Your task to perform on an android device: Search for razer deathadder on newegg.com, select the first entry, add it to the cart, then select checkout. Image 0: 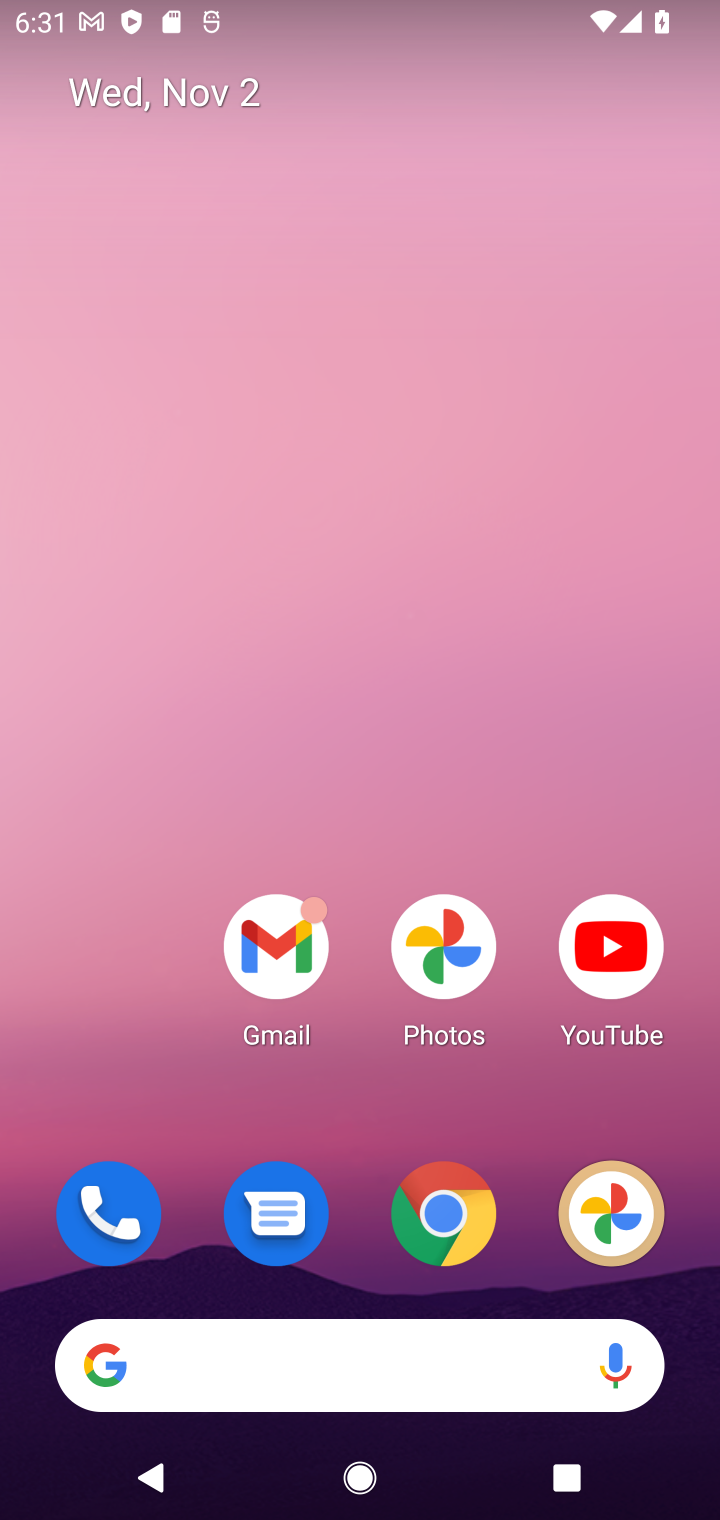
Step 0: click (445, 1207)
Your task to perform on an android device: Search for razer deathadder on newegg.com, select the first entry, add it to the cart, then select checkout. Image 1: 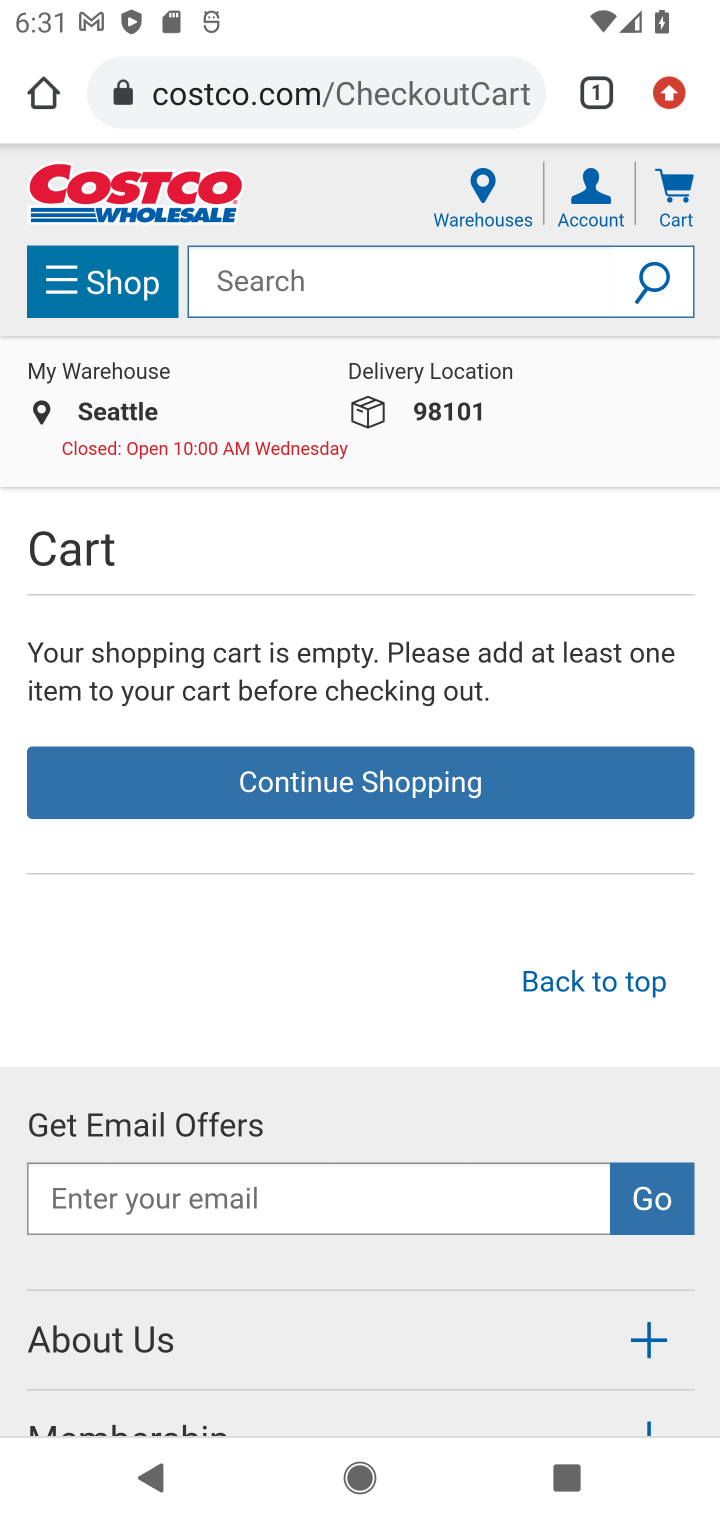
Step 1: click (384, 63)
Your task to perform on an android device: Search for razer deathadder on newegg.com, select the first entry, add it to the cart, then select checkout. Image 2: 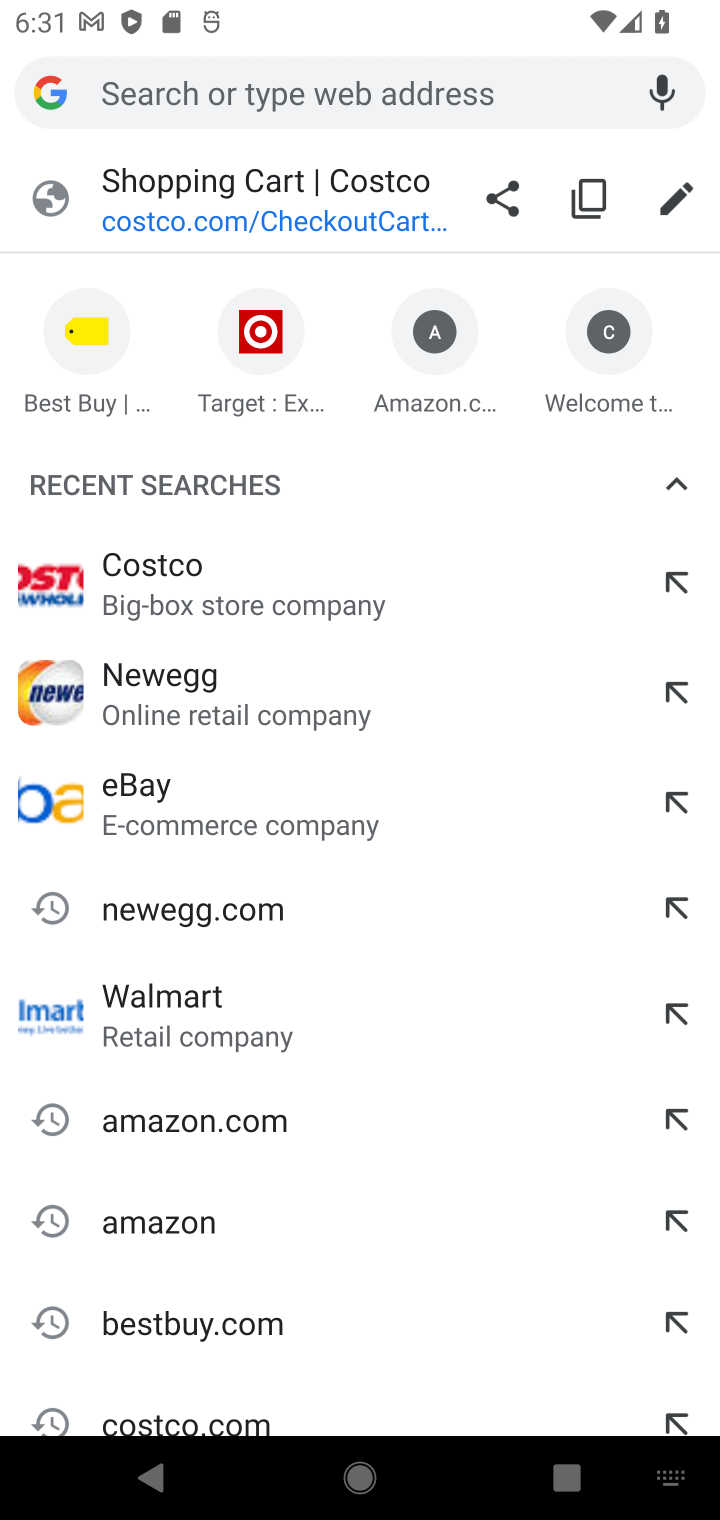
Step 2: click (139, 696)
Your task to perform on an android device: Search for razer deathadder on newegg.com, select the first entry, add it to the cart, then select checkout. Image 3: 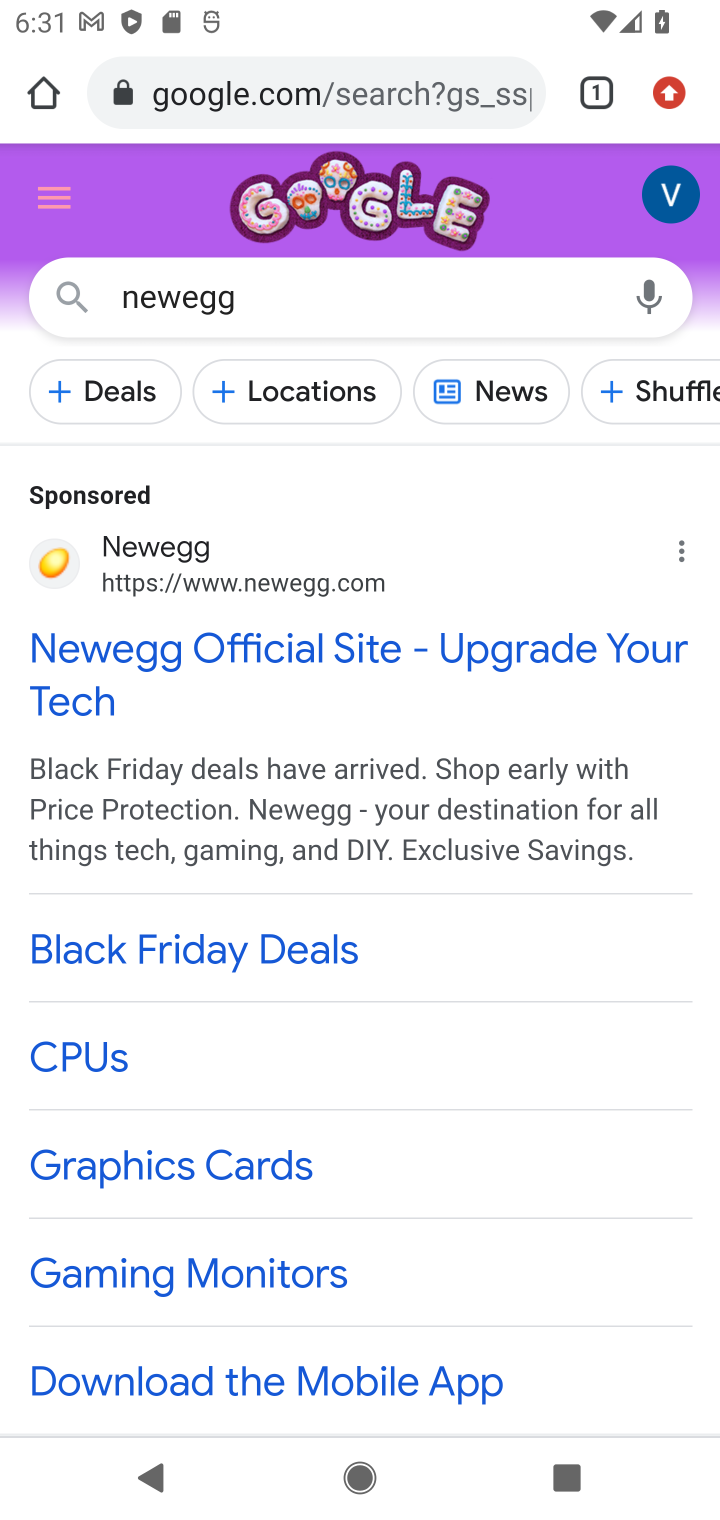
Step 3: click (142, 647)
Your task to perform on an android device: Search for razer deathadder on newegg.com, select the first entry, add it to the cart, then select checkout. Image 4: 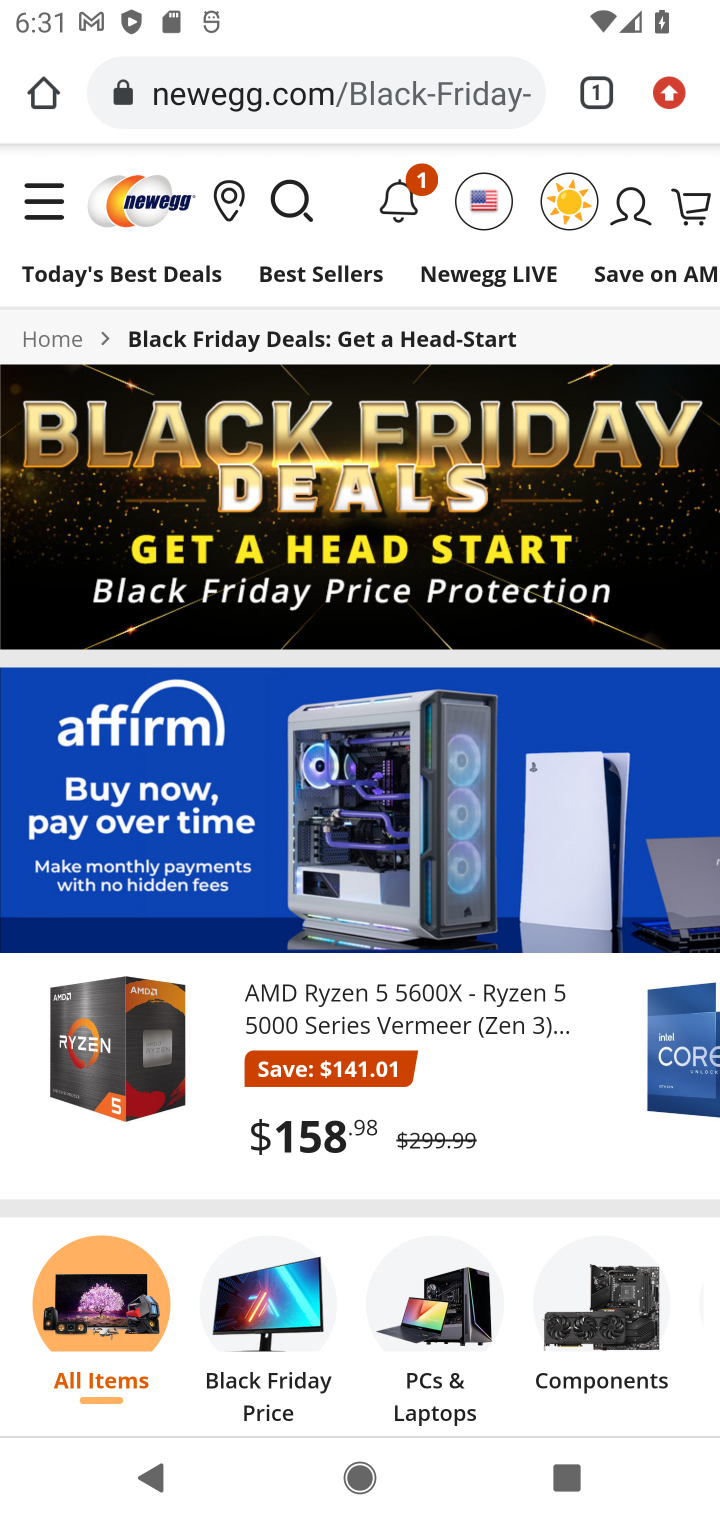
Step 4: click (296, 190)
Your task to perform on an android device: Search for razer deathadder on newegg.com, select the first entry, add it to the cart, then select checkout. Image 5: 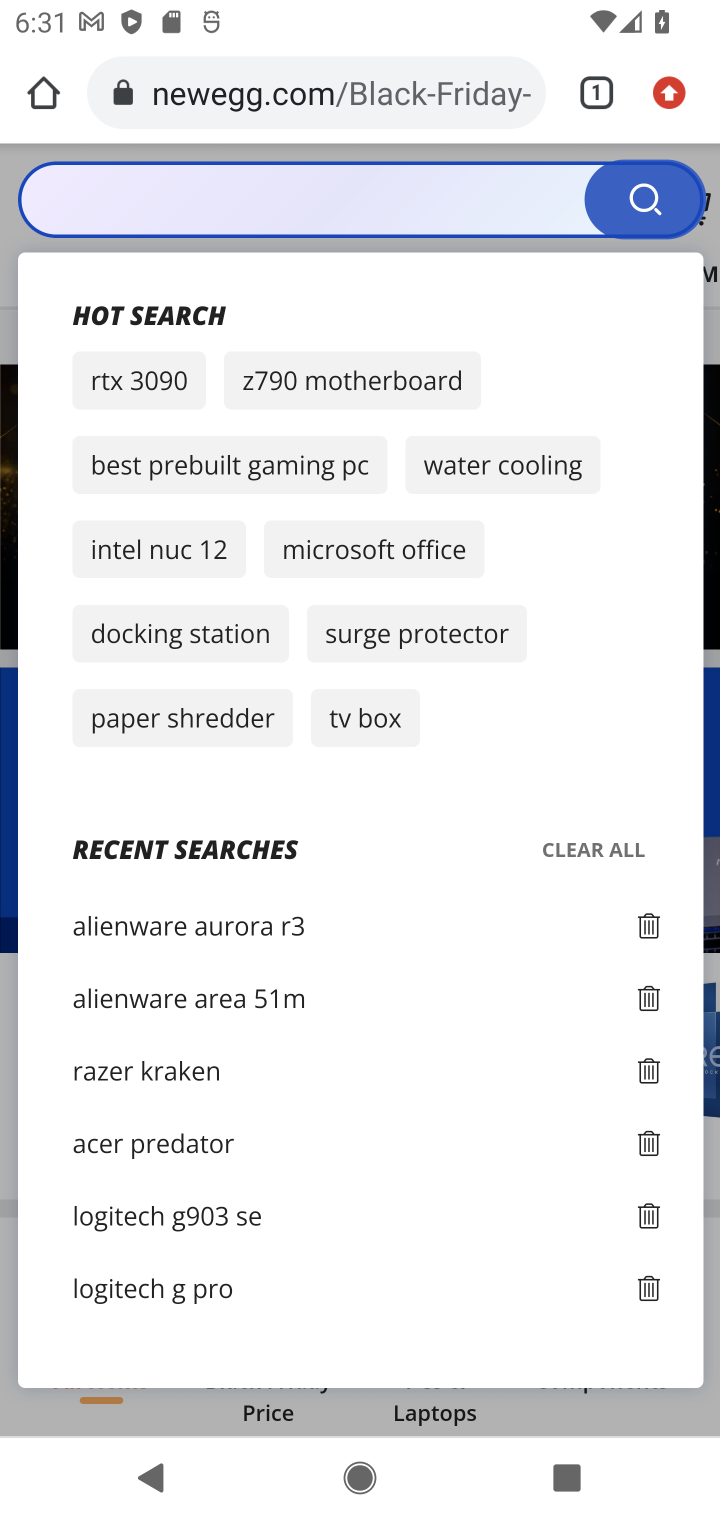
Step 5: click (162, 196)
Your task to perform on an android device: Search for razer deathadder on newegg.com, select the first entry, add it to the cart, then select checkout. Image 6: 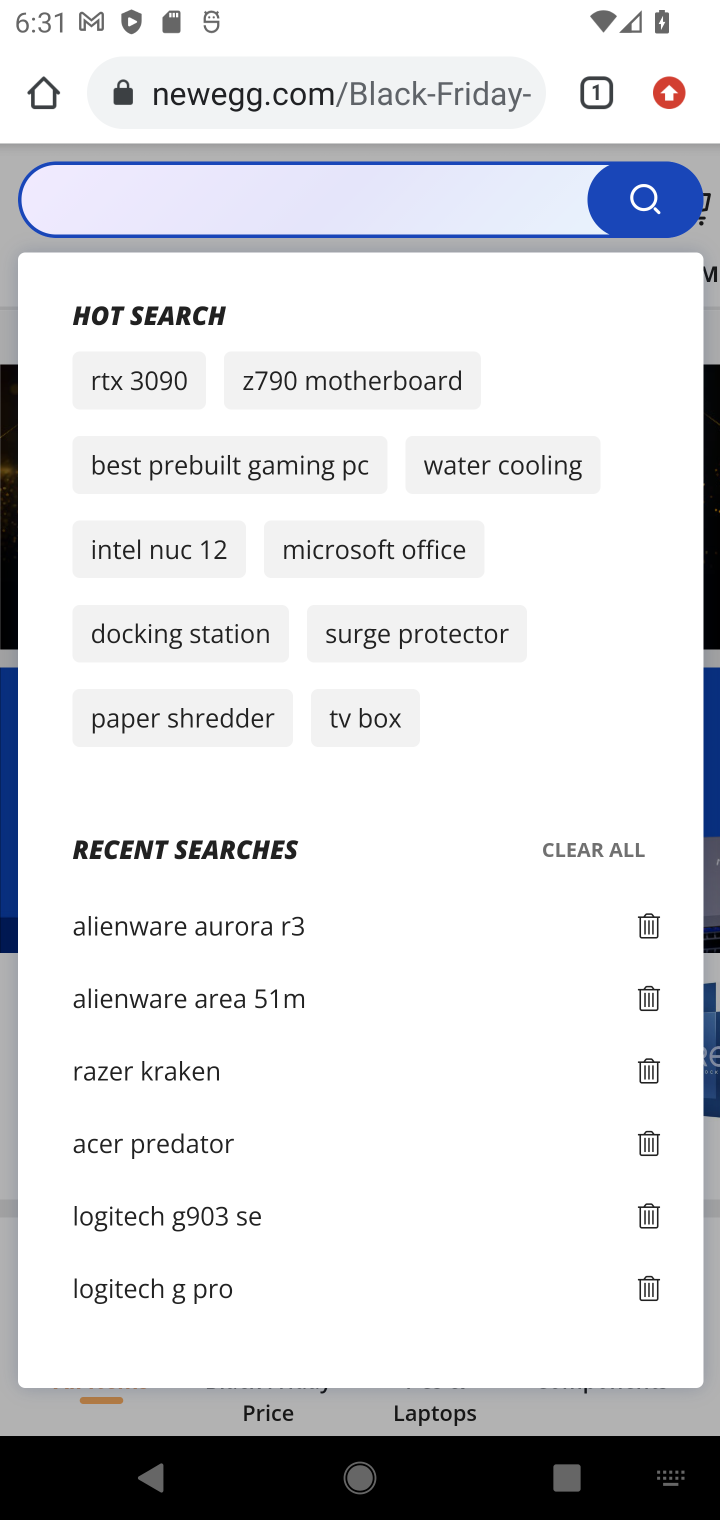
Step 6: type "razer deathadder"
Your task to perform on an android device: Search for razer deathadder on newegg.com, select the first entry, add it to the cart, then select checkout. Image 7: 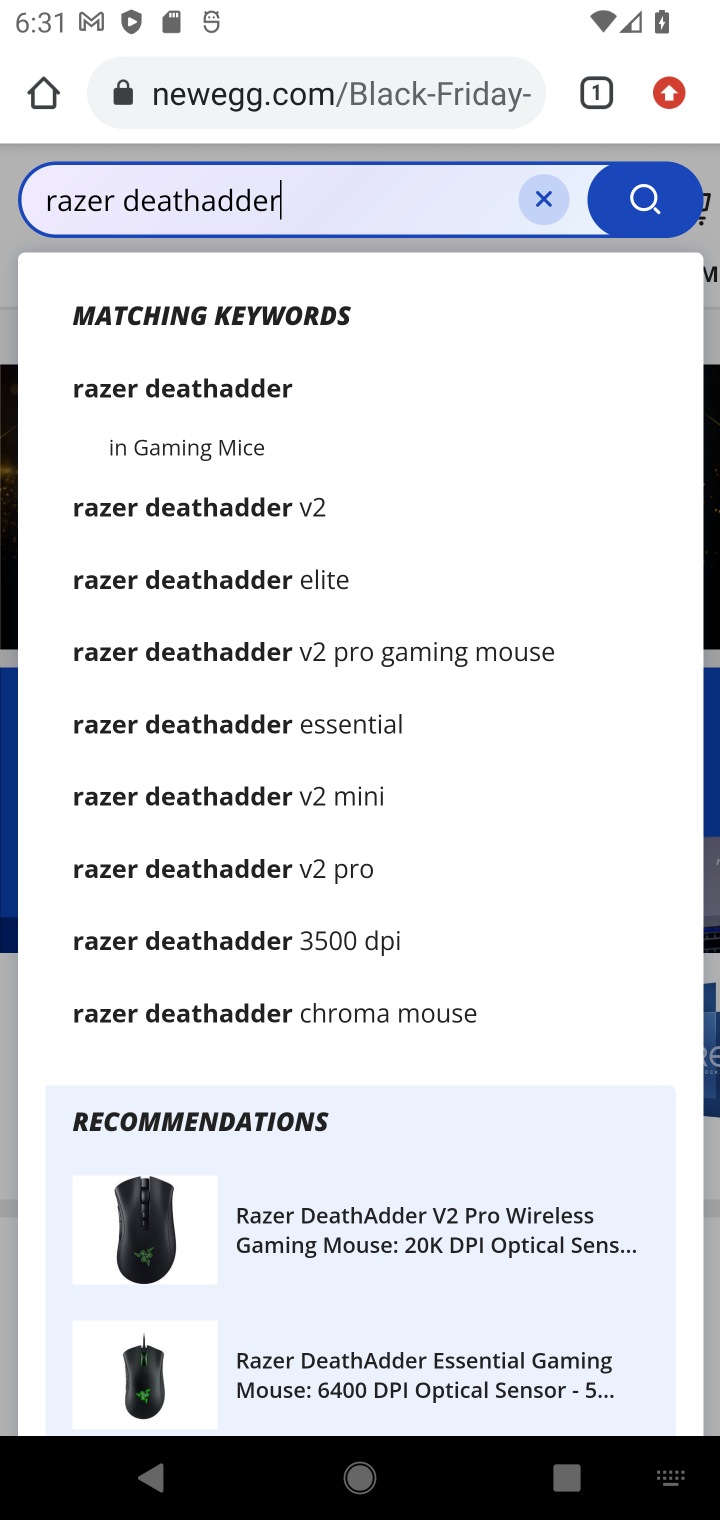
Step 7: click (153, 383)
Your task to perform on an android device: Search for razer deathadder on newegg.com, select the first entry, add it to the cart, then select checkout. Image 8: 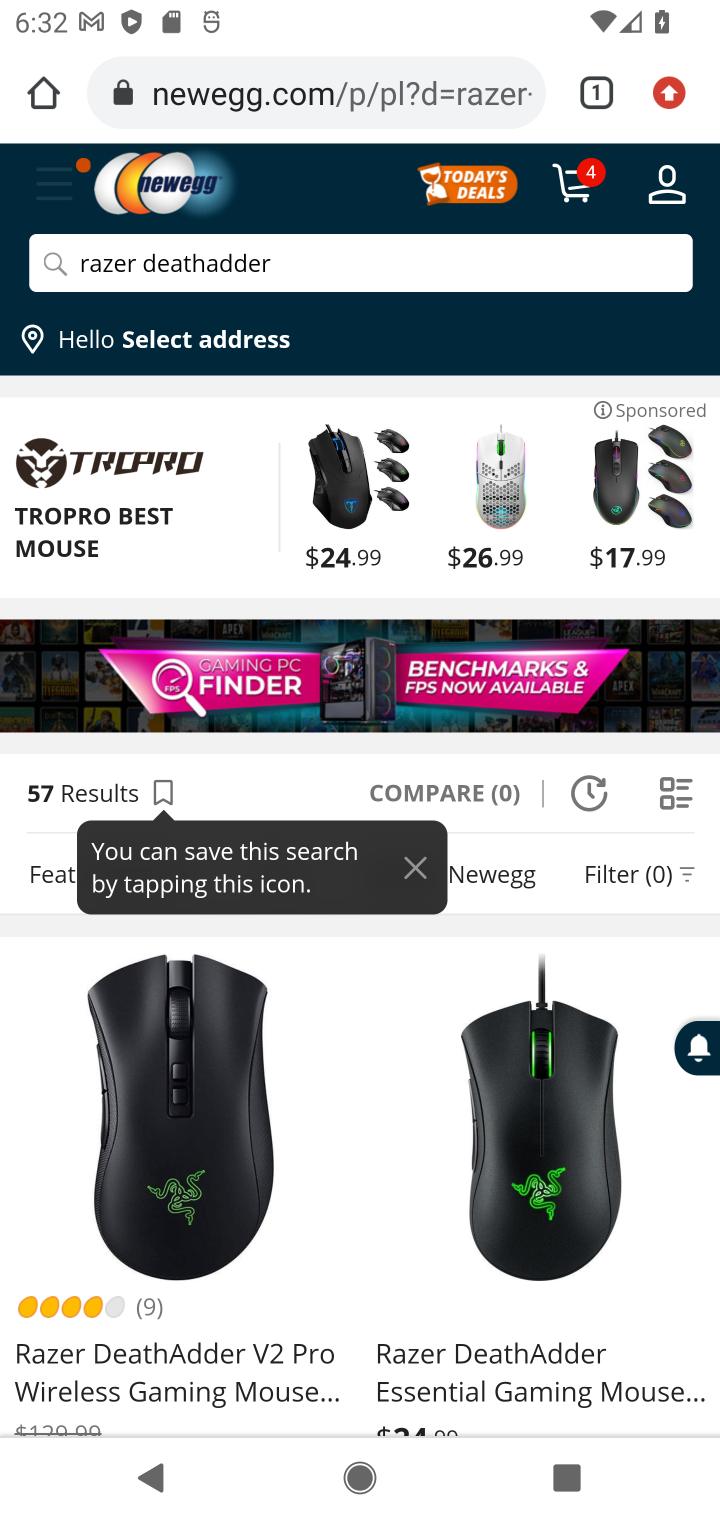
Step 8: drag from (353, 1340) to (377, 790)
Your task to perform on an android device: Search for razer deathadder on newegg.com, select the first entry, add it to the cart, then select checkout. Image 9: 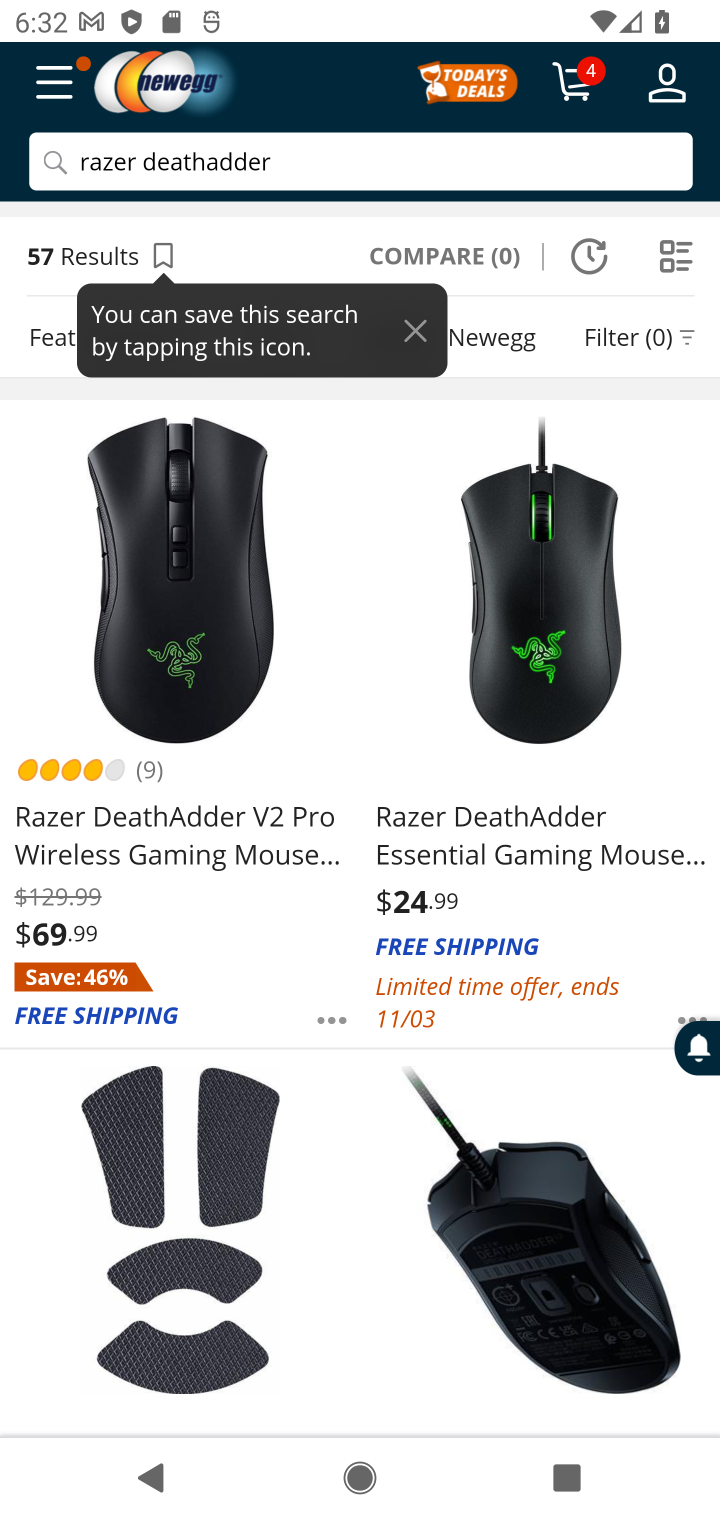
Step 9: click (112, 816)
Your task to perform on an android device: Search for razer deathadder on newegg.com, select the first entry, add it to the cart, then select checkout. Image 10: 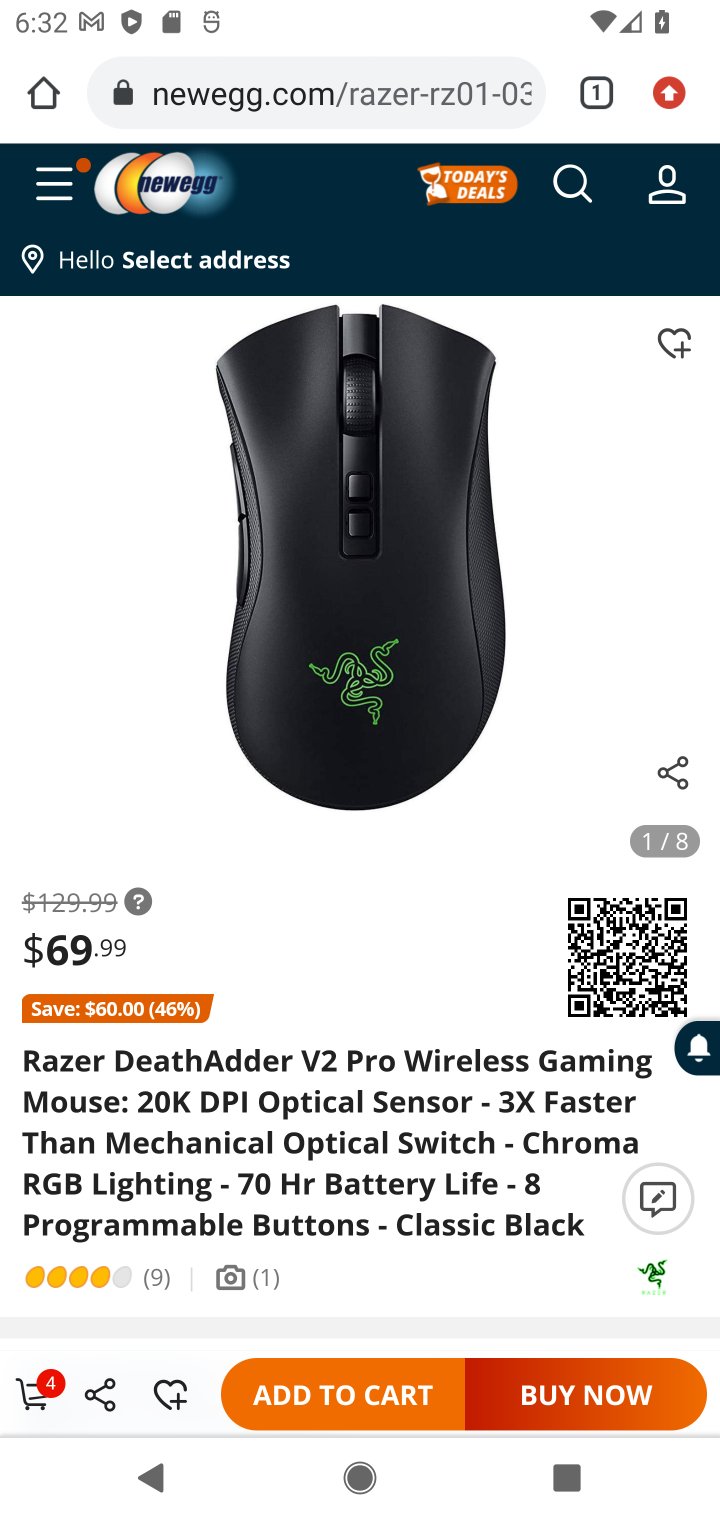
Step 10: click (347, 1379)
Your task to perform on an android device: Search for razer deathadder on newegg.com, select the first entry, add it to the cart, then select checkout. Image 11: 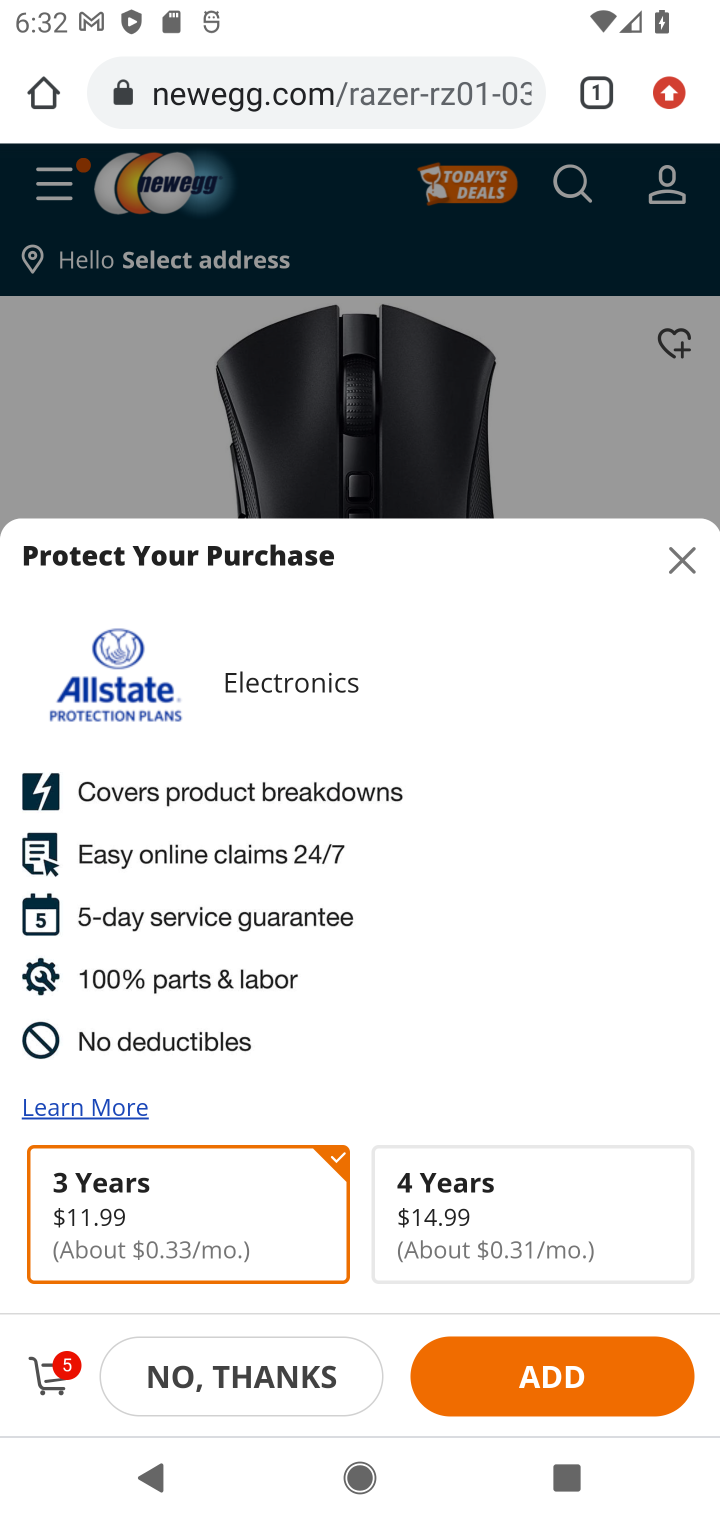
Step 11: click (220, 1380)
Your task to perform on an android device: Search for razer deathadder on newegg.com, select the first entry, add it to the cart, then select checkout. Image 12: 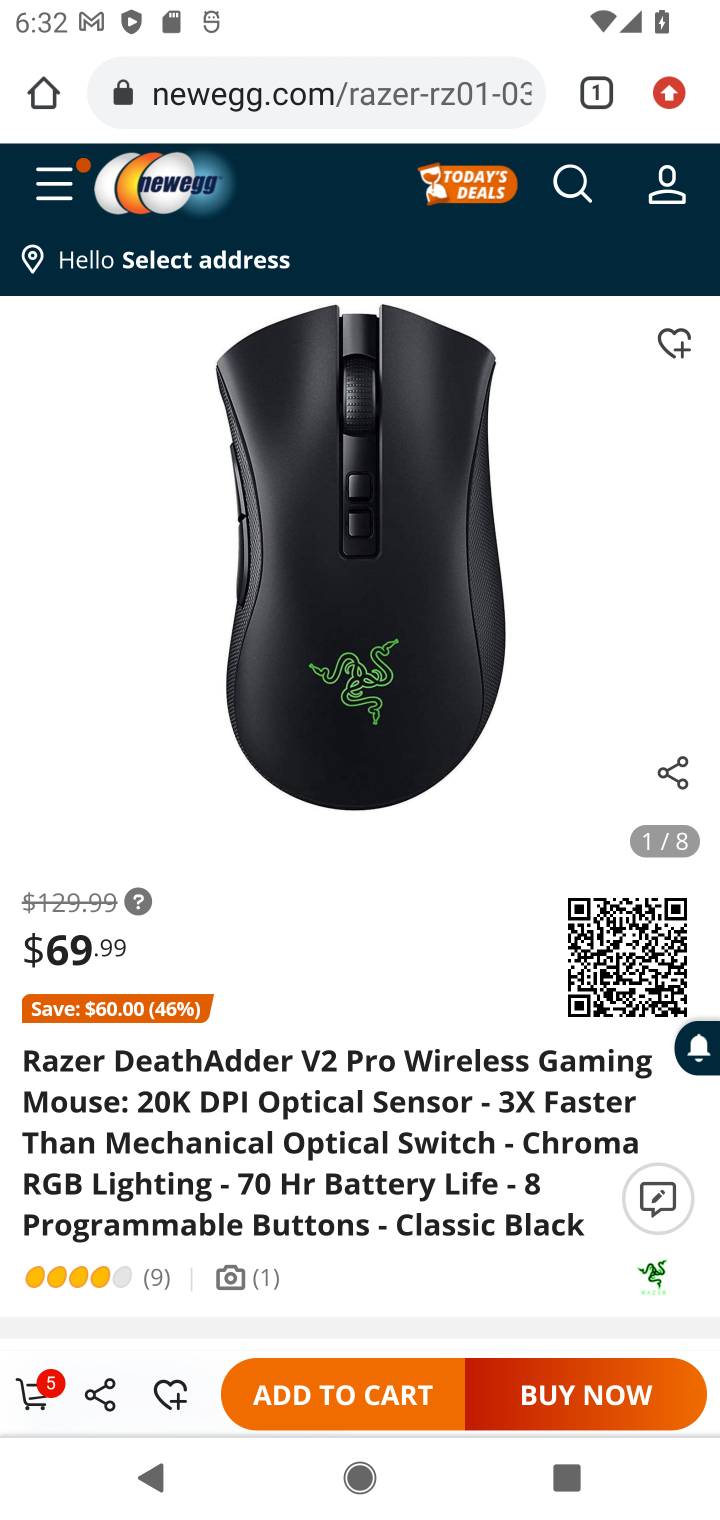
Step 12: click (35, 1385)
Your task to perform on an android device: Search for razer deathadder on newegg.com, select the first entry, add it to the cart, then select checkout. Image 13: 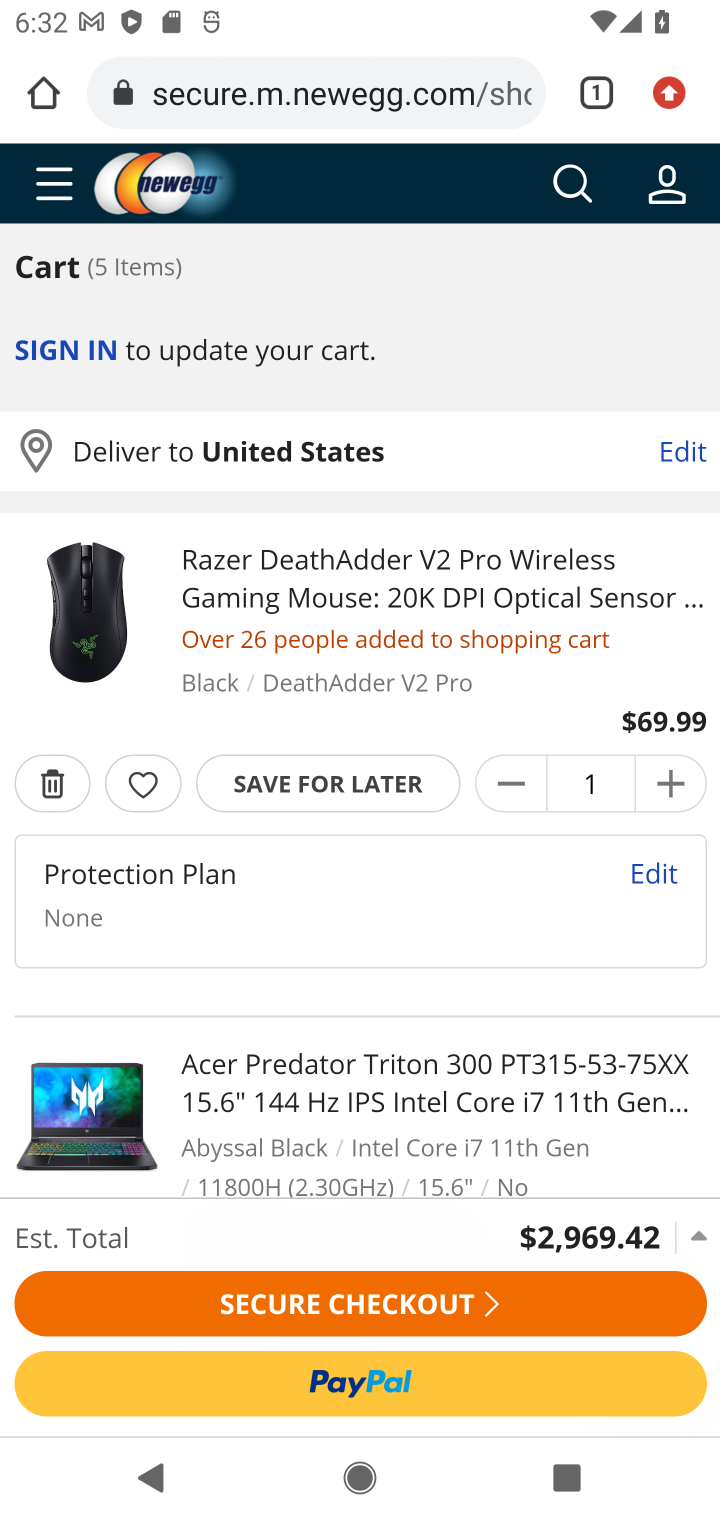
Step 13: click (421, 1368)
Your task to perform on an android device: Search for razer deathadder on newegg.com, select the first entry, add it to the cart, then select checkout. Image 14: 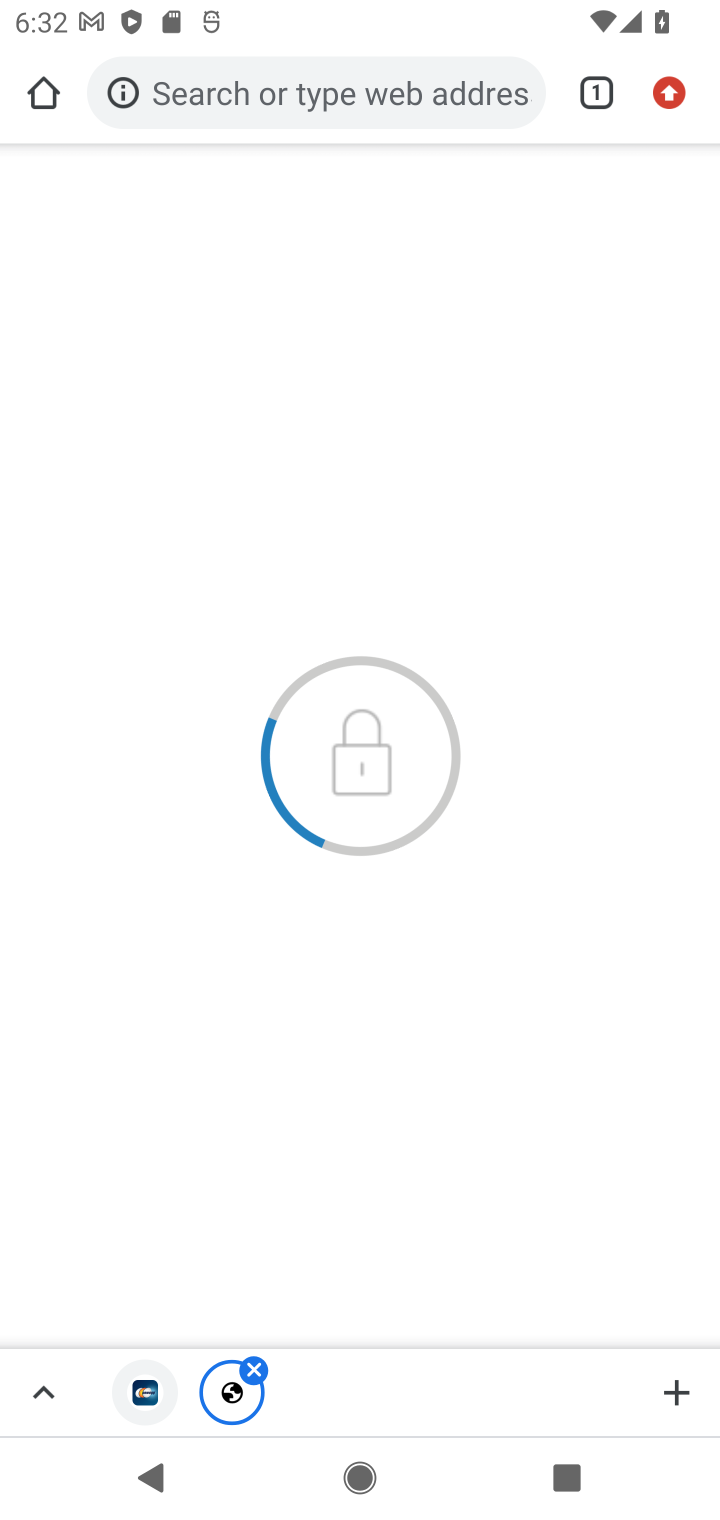
Step 14: press back button
Your task to perform on an android device: Search for razer deathadder on newegg.com, select the first entry, add it to the cart, then select checkout. Image 15: 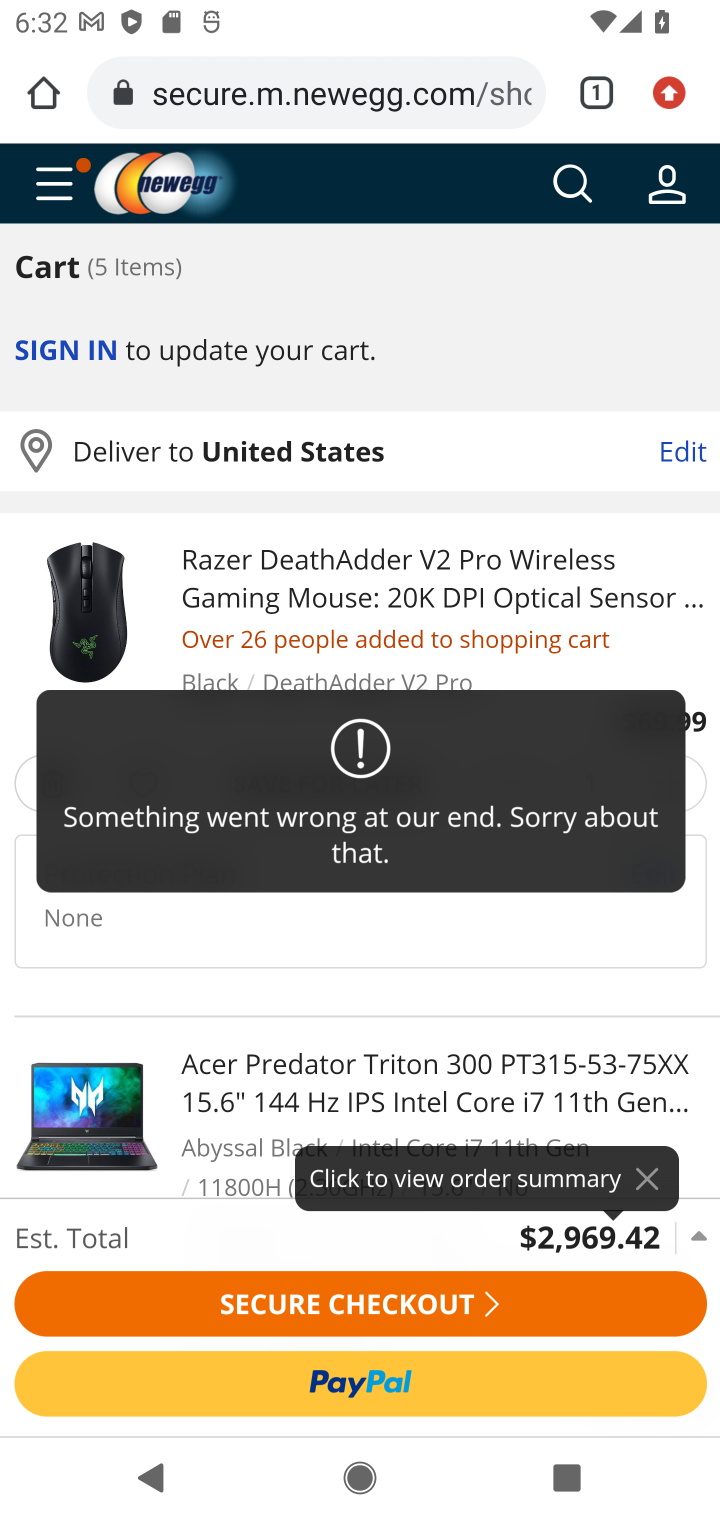
Step 15: click (327, 1298)
Your task to perform on an android device: Search for razer deathadder on newegg.com, select the first entry, add it to the cart, then select checkout. Image 16: 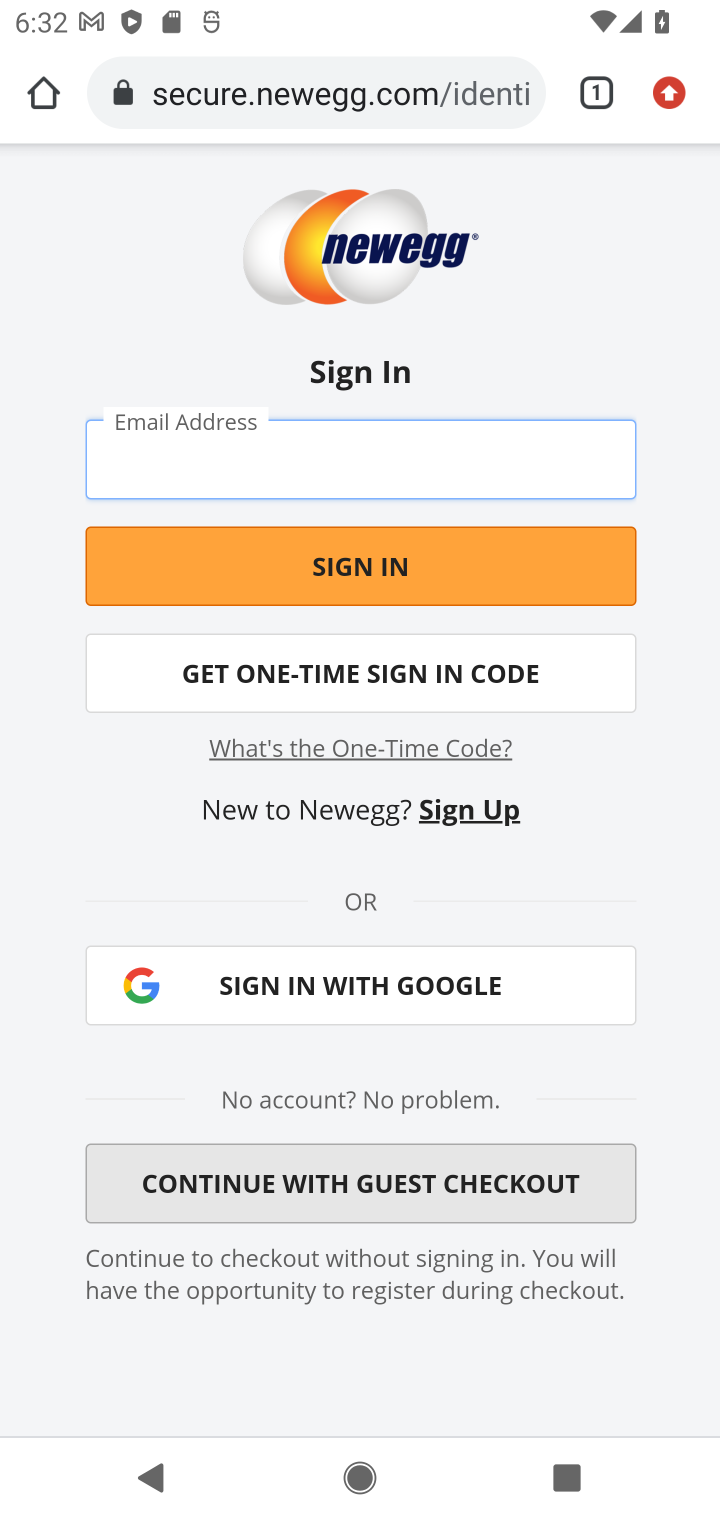
Step 16: task complete